Your task to perform on an android device: see sites visited before in the chrome app Image 0: 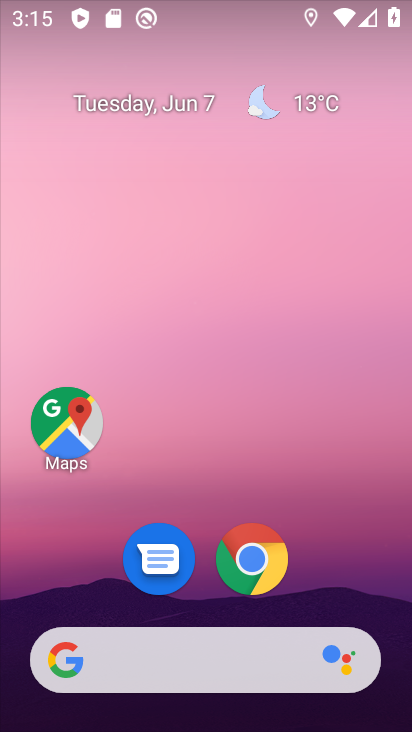
Step 0: press home button
Your task to perform on an android device: see sites visited before in the chrome app Image 1: 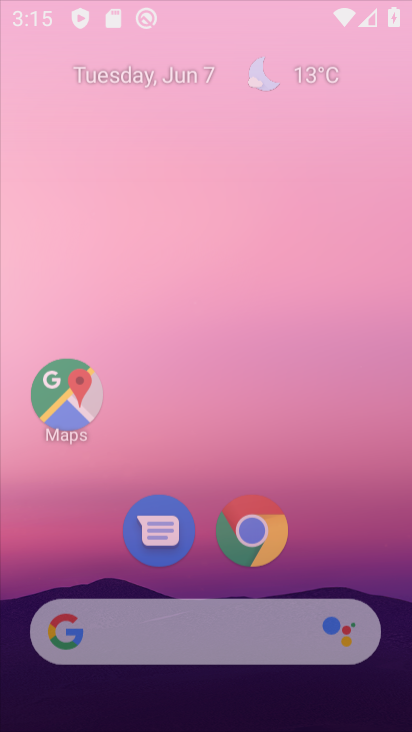
Step 1: drag from (229, 720) to (239, 66)
Your task to perform on an android device: see sites visited before in the chrome app Image 2: 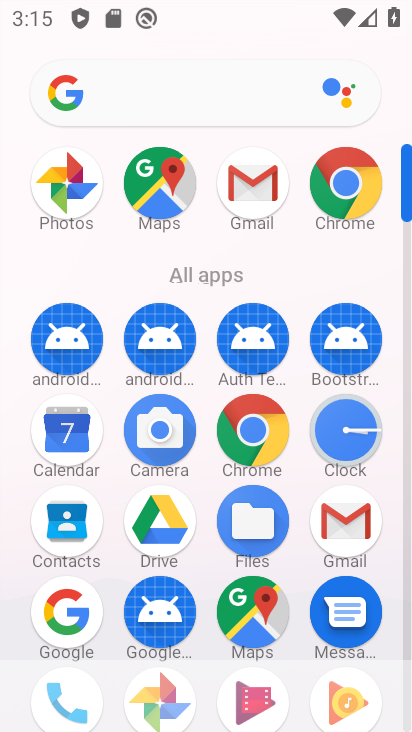
Step 2: click (244, 432)
Your task to perform on an android device: see sites visited before in the chrome app Image 3: 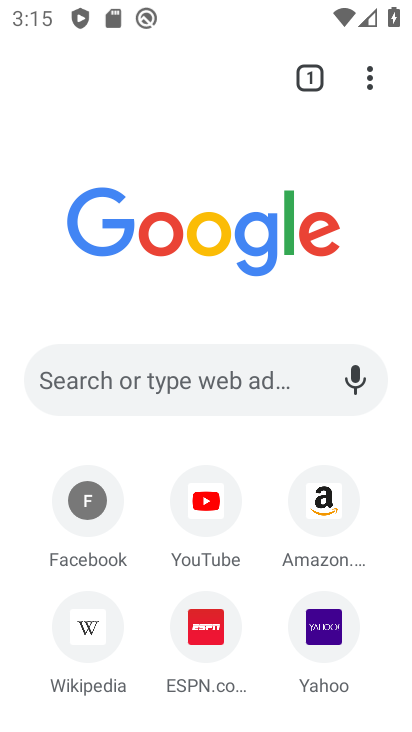
Step 3: click (370, 82)
Your task to perform on an android device: see sites visited before in the chrome app Image 4: 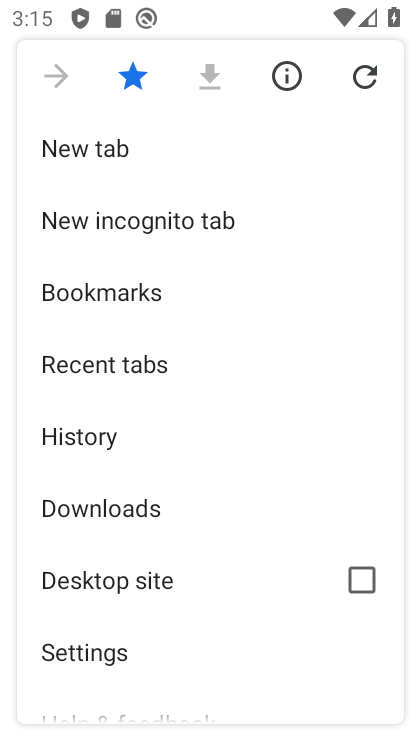
Step 4: click (77, 435)
Your task to perform on an android device: see sites visited before in the chrome app Image 5: 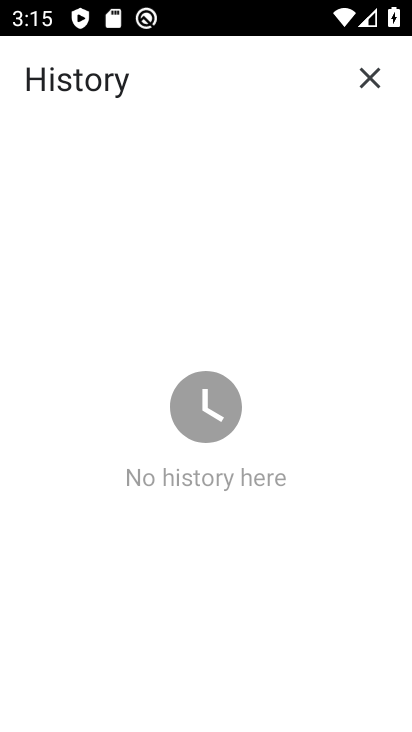
Step 5: task complete